Your task to perform on an android device: Check the news Image 0: 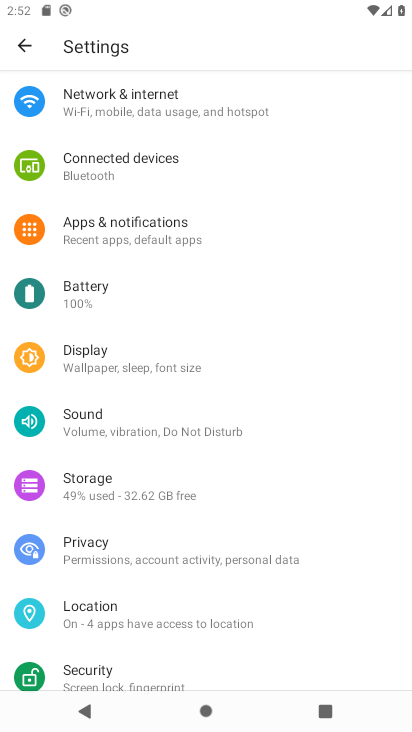
Step 0: press home button
Your task to perform on an android device: Check the news Image 1: 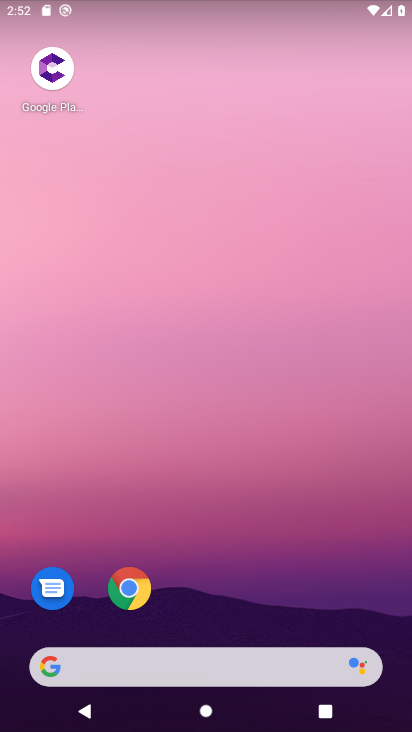
Step 1: drag from (203, 644) to (169, 110)
Your task to perform on an android device: Check the news Image 2: 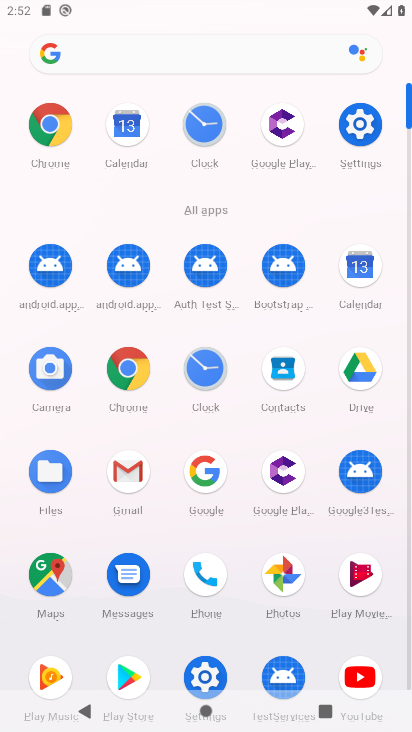
Step 2: click (193, 463)
Your task to perform on an android device: Check the news Image 3: 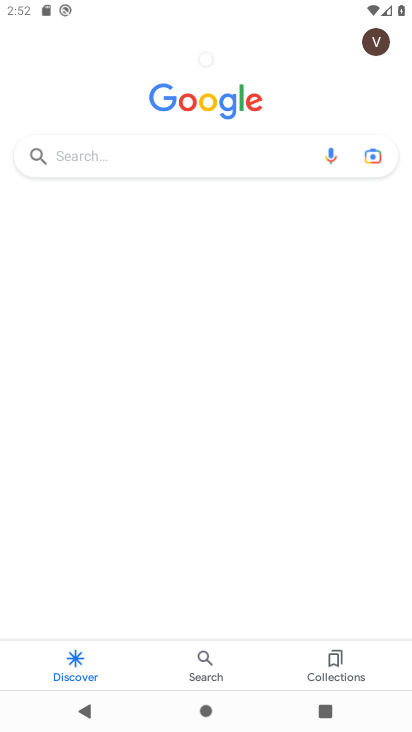
Step 3: click (147, 163)
Your task to perform on an android device: Check the news Image 4: 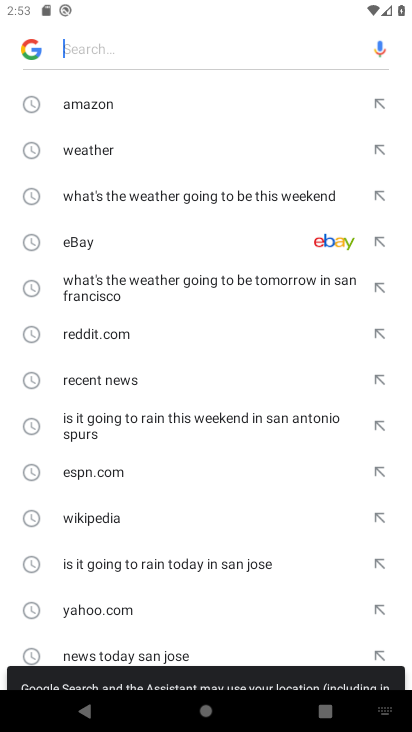
Step 4: click (99, 371)
Your task to perform on an android device: Check the news Image 5: 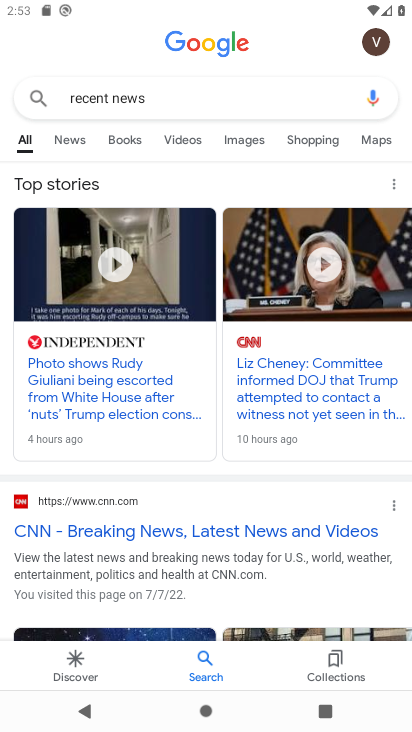
Step 5: click (58, 141)
Your task to perform on an android device: Check the news Image 6: 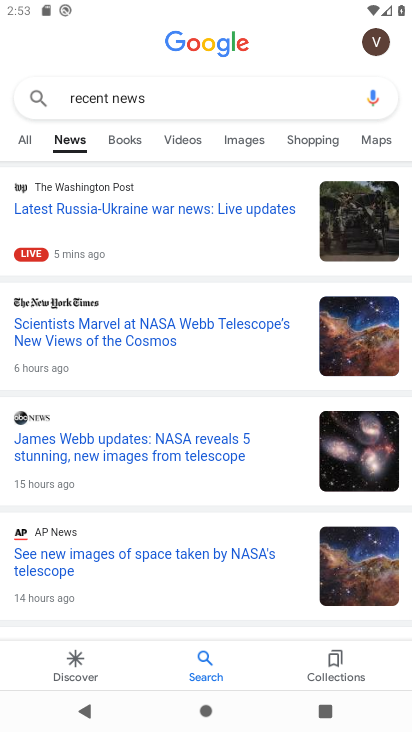
Step 6: task complete